Your task to perform on an android device: Open Amazon Image 0: 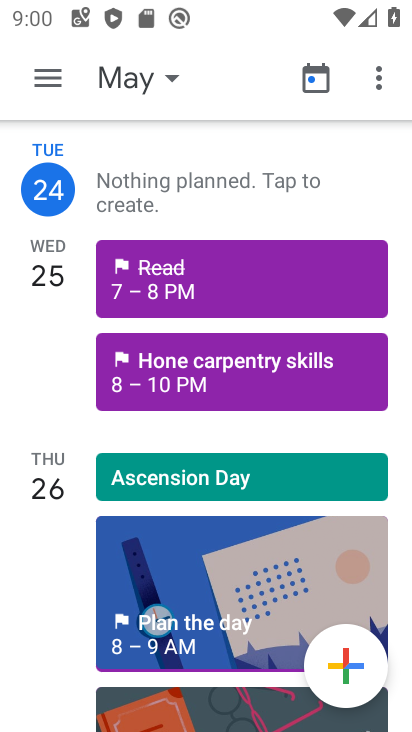
Step 0: press home button
Your task to perform on an android device: Open Amazon Image 1: 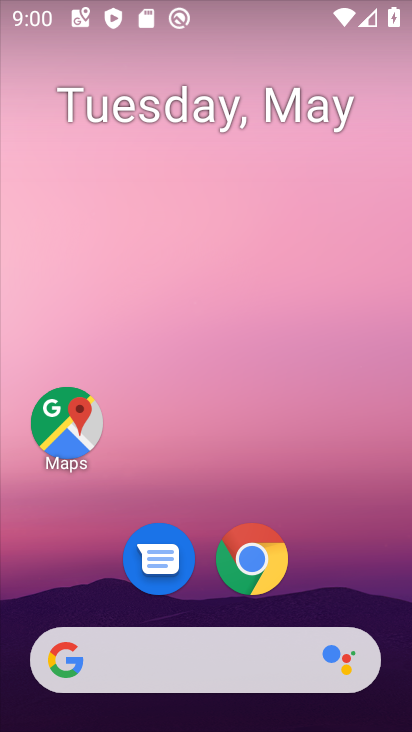
Step 1: click (250, 555)
Your task to perform on an android device: Open Amazon Image 2: 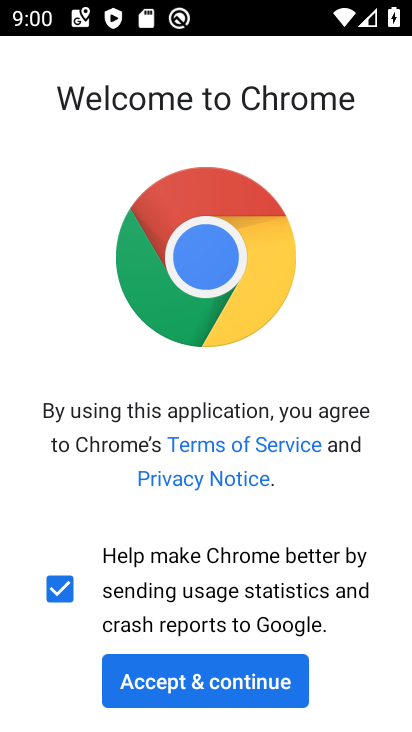
Step 2: click (212, 684)
Your task to perform on an android device: Open Amazon Image 3: 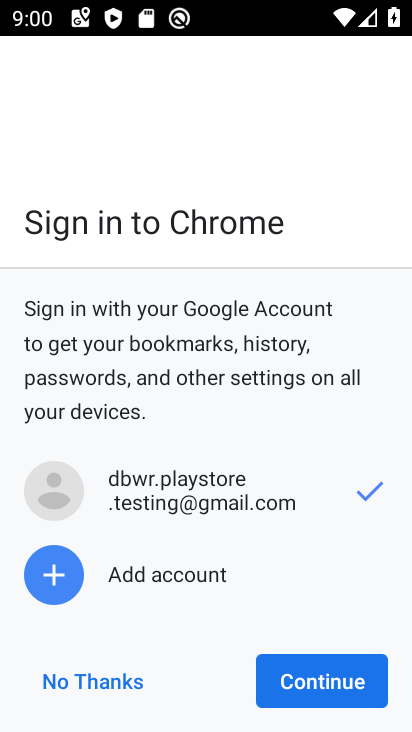
Step 3: click (316, 678)
Your task to perform on an android device: Open Amazon Image 4: 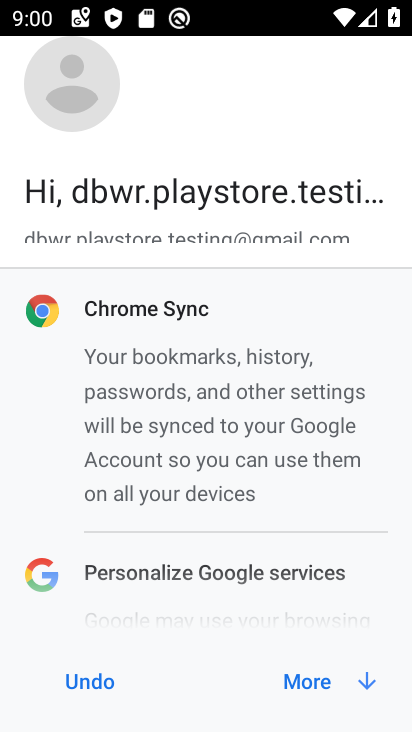
Step 4: click (316, 675)
Your task to perform on an android device: Open Amazon Image 5: 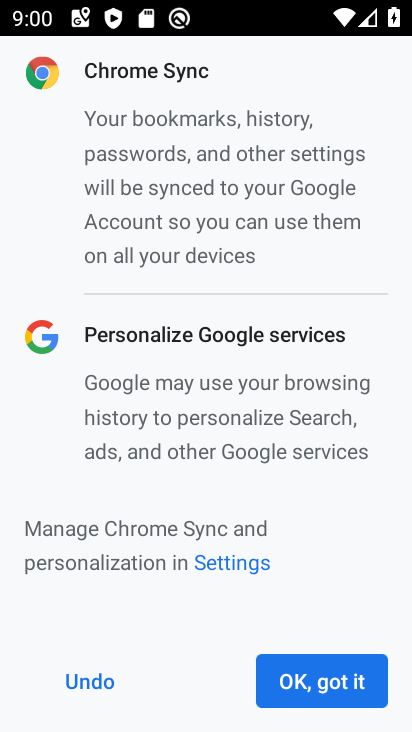
Step 5: click (316, 675)
Your task to perform on an android device: Open Amazon Image 6: 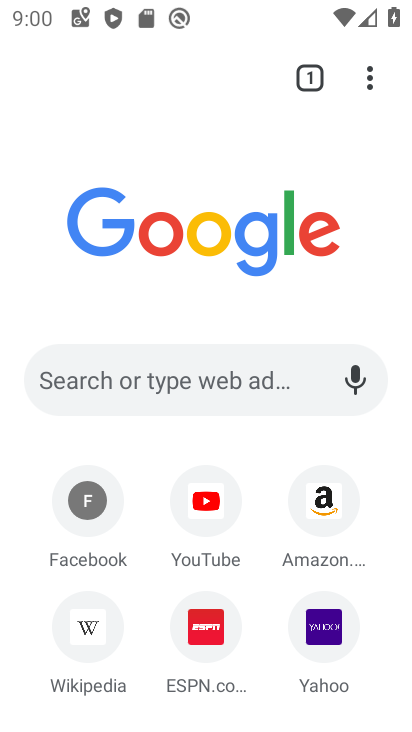
Step 6: click (317, 531)
Your task to perform on an android device: Open Amazon Image 7: 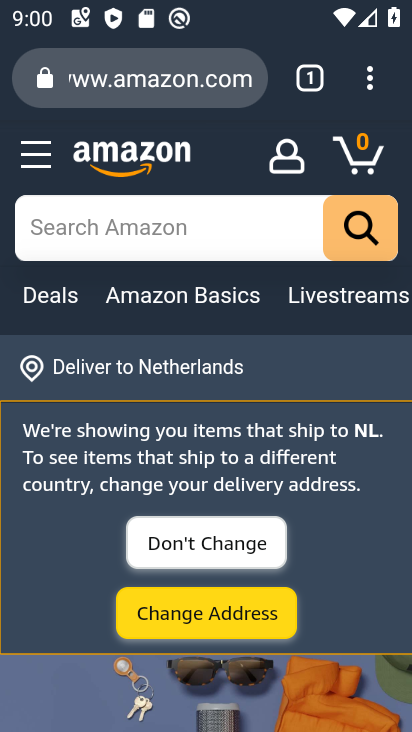
Step 7: task complete